Your task to perform on an android device: Go to battery settings Image 0: 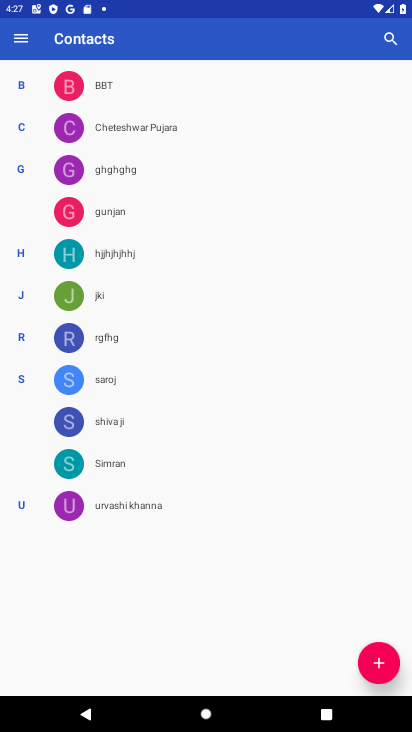
Step 0: press home button
Your task to perform on an android device: Go to battery settings Image 1: 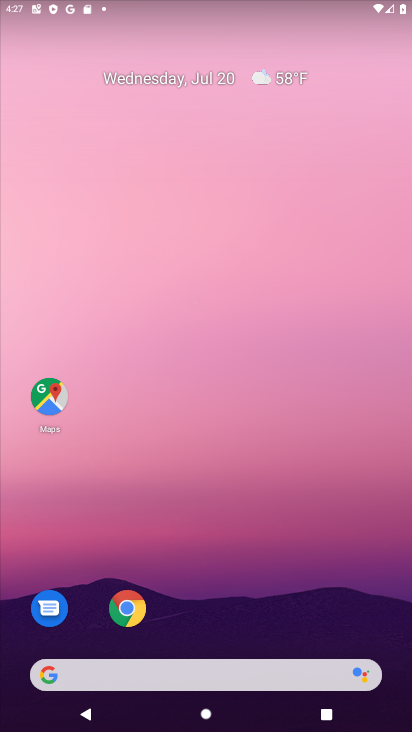
Step 1: drag from (233, 592) to (225, 35)
Your task to perform on an android device: Go to battery settings Image 2: 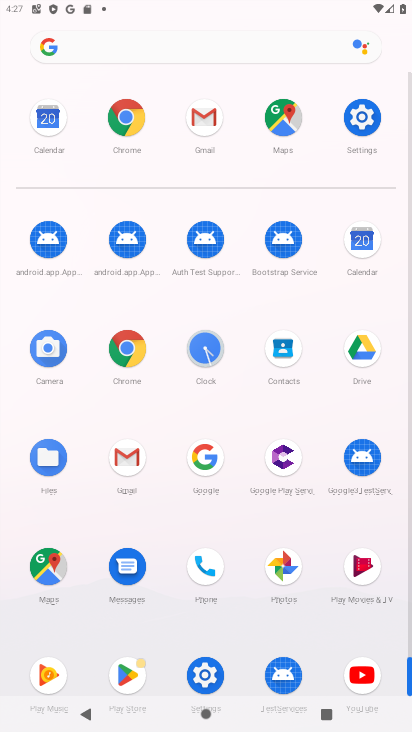
Step 2: click (199, 673)
Your task to perform on an android device: Go to battery settings Image 3: 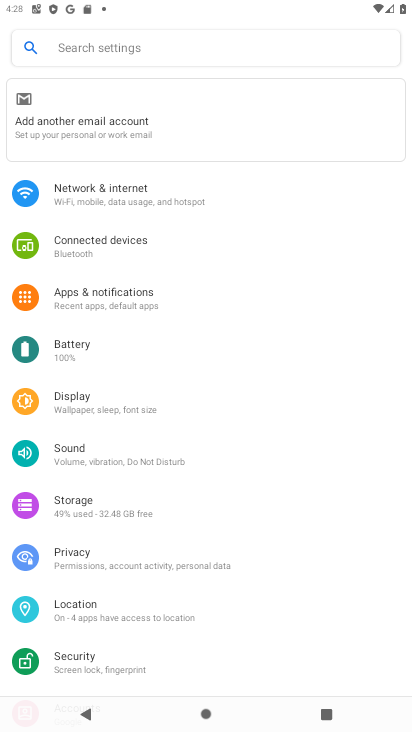
Step 3: click (81, 349)
Your task to perform on an android device: Go to battery settings Image 4: 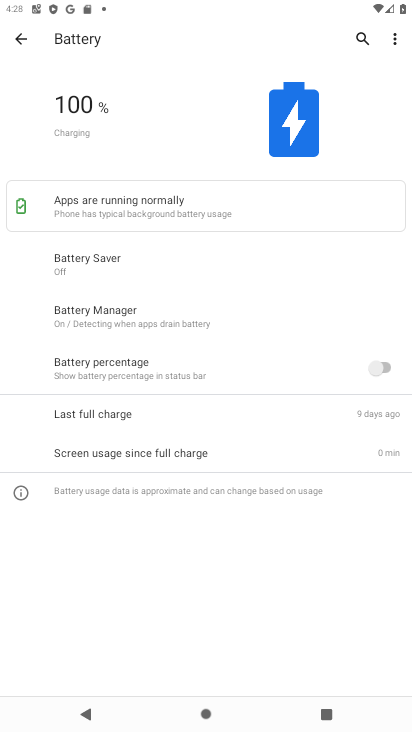
Step 4: task complete